Your task to perform on an android device: Open settings Image 0: 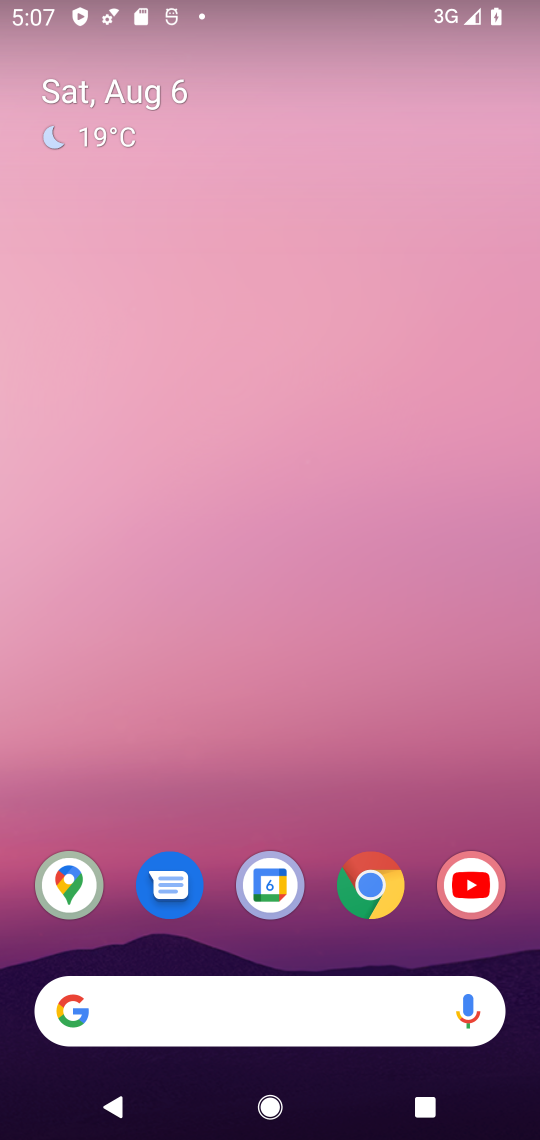
Step 0: drag from (501, 948) to (346, 58)
Your task to perform on an android device: Open settings Image 1: 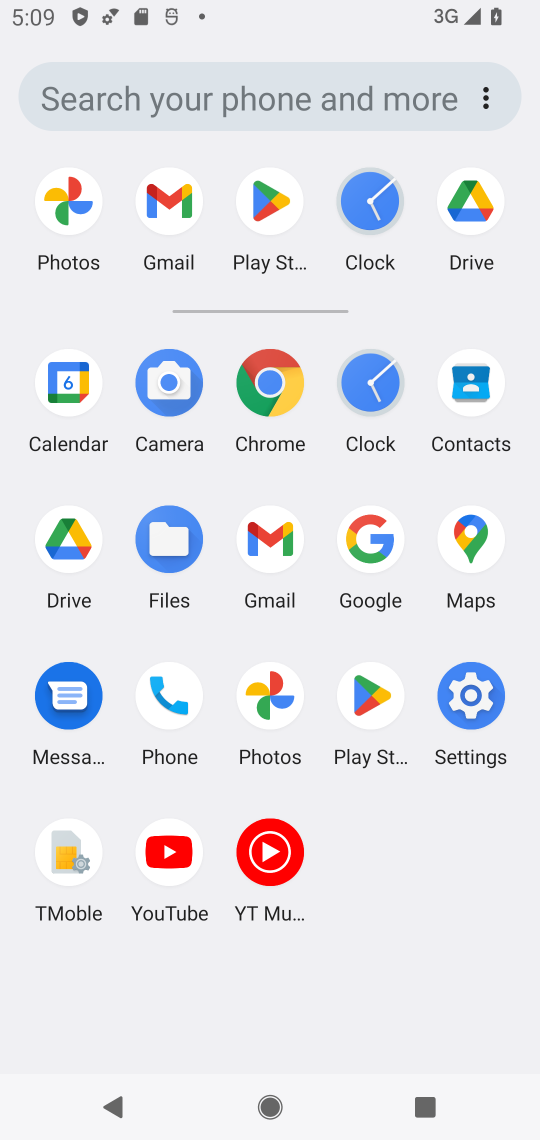
Step 1: click (472, 712)
Your task to perform on an android device: Open settings Image 2: 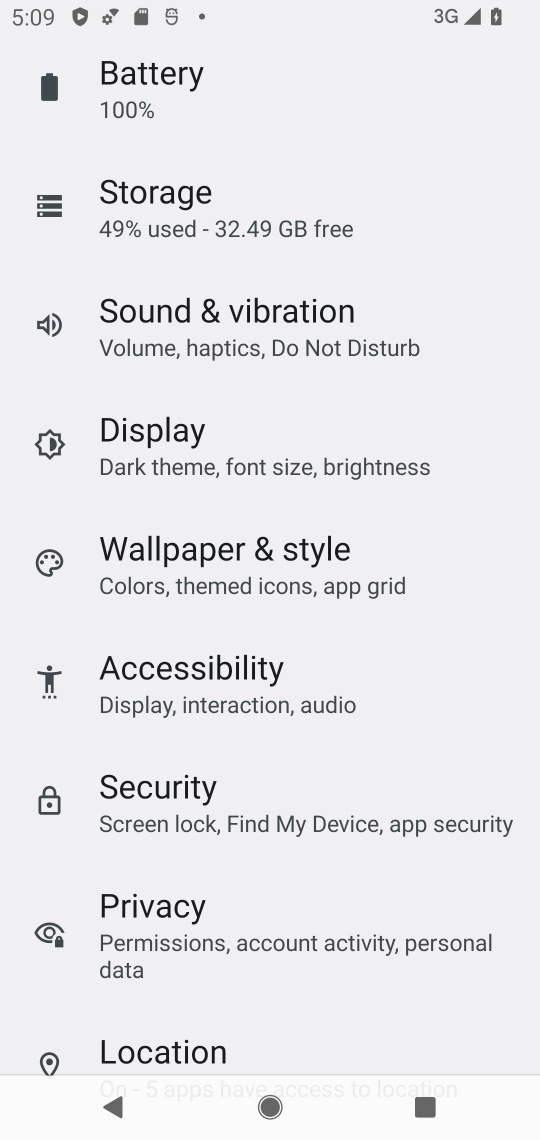
Step 2: task complete